Your task to perform on an android device: Go to notification settings Image 0: 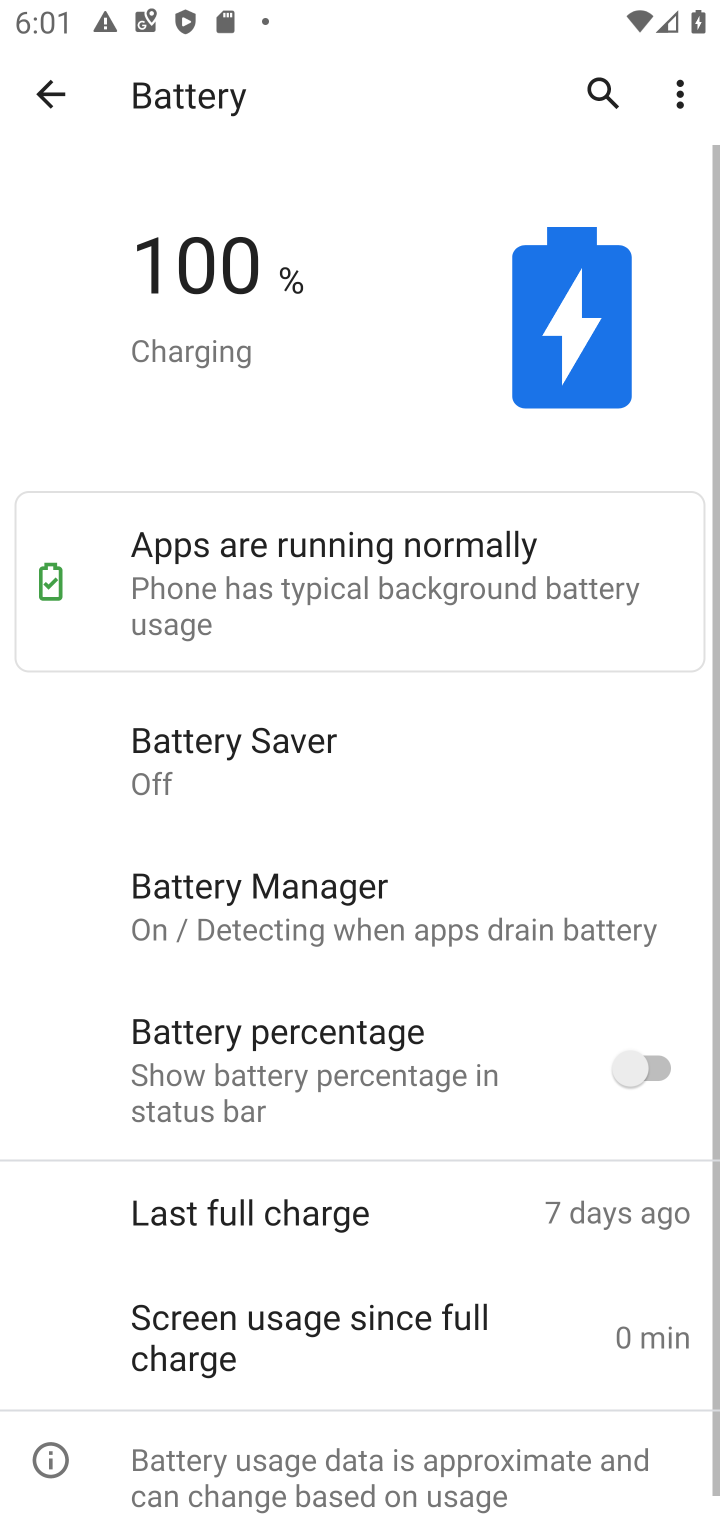
Step 0: press home button
Your task to perform on an android device: Go to notification settings Image 1: 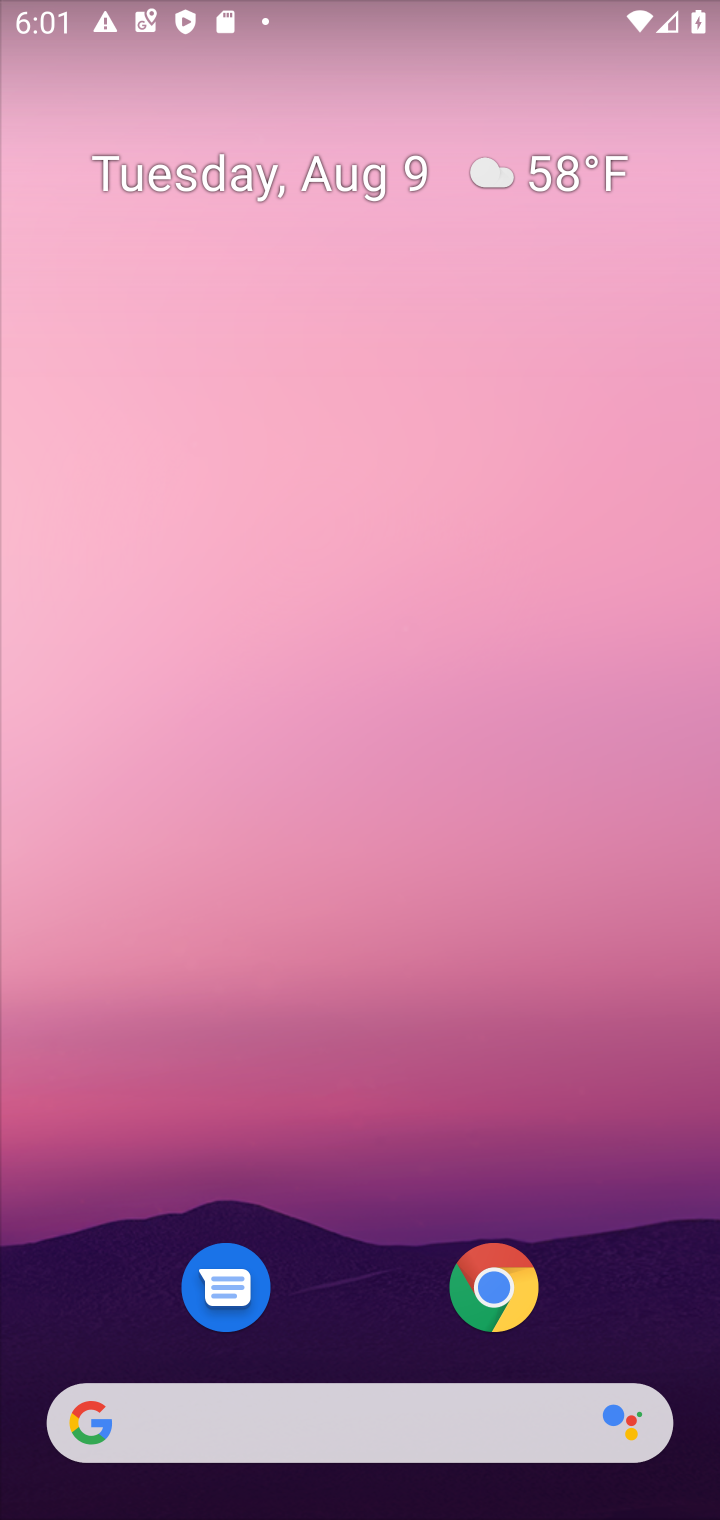
Step 1: drag from (378, 1231) to (345, 627)
Your task to perform on an android device: Go to notification settings Image 2: 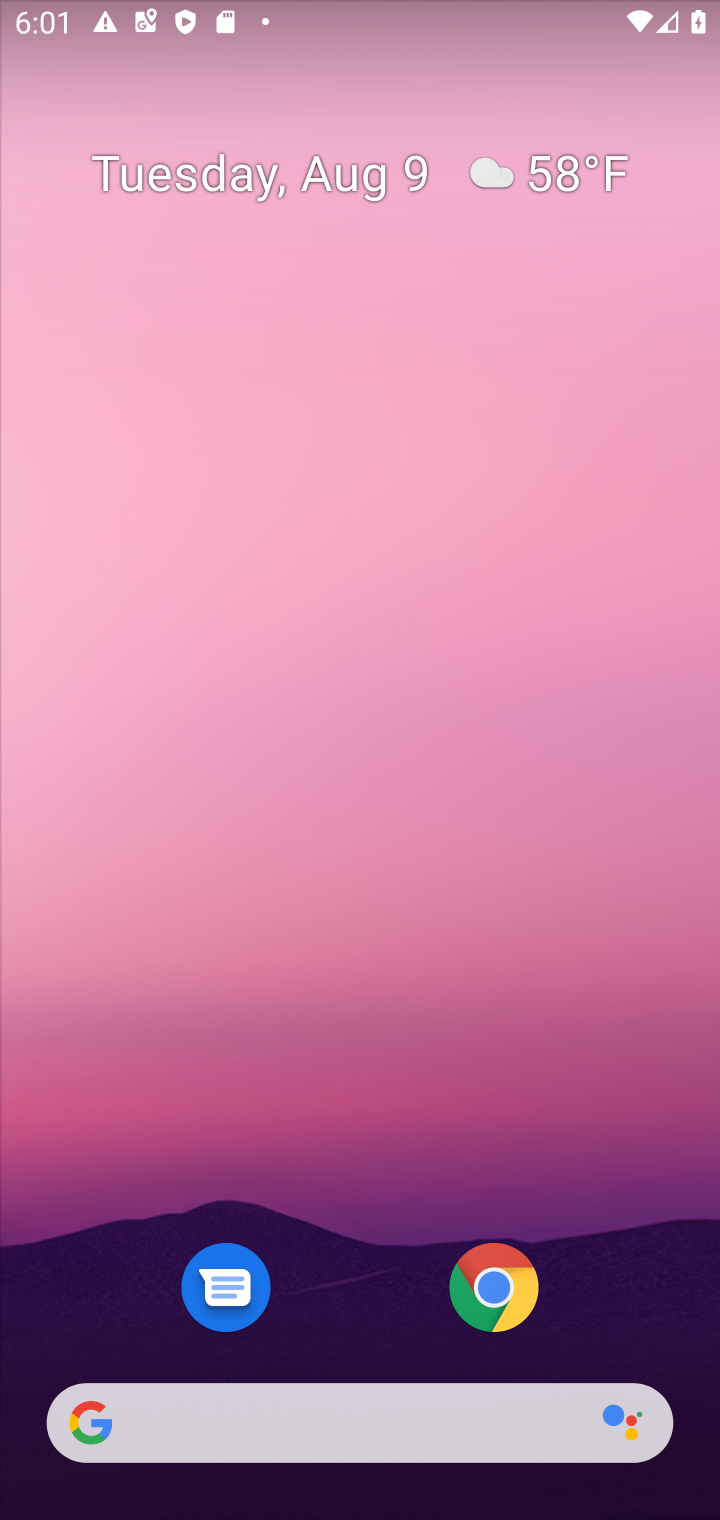
Step 2: drag from (357, 1075) to (191, 195)
Your task to perform on an android device: Go to notification settings Image 3: 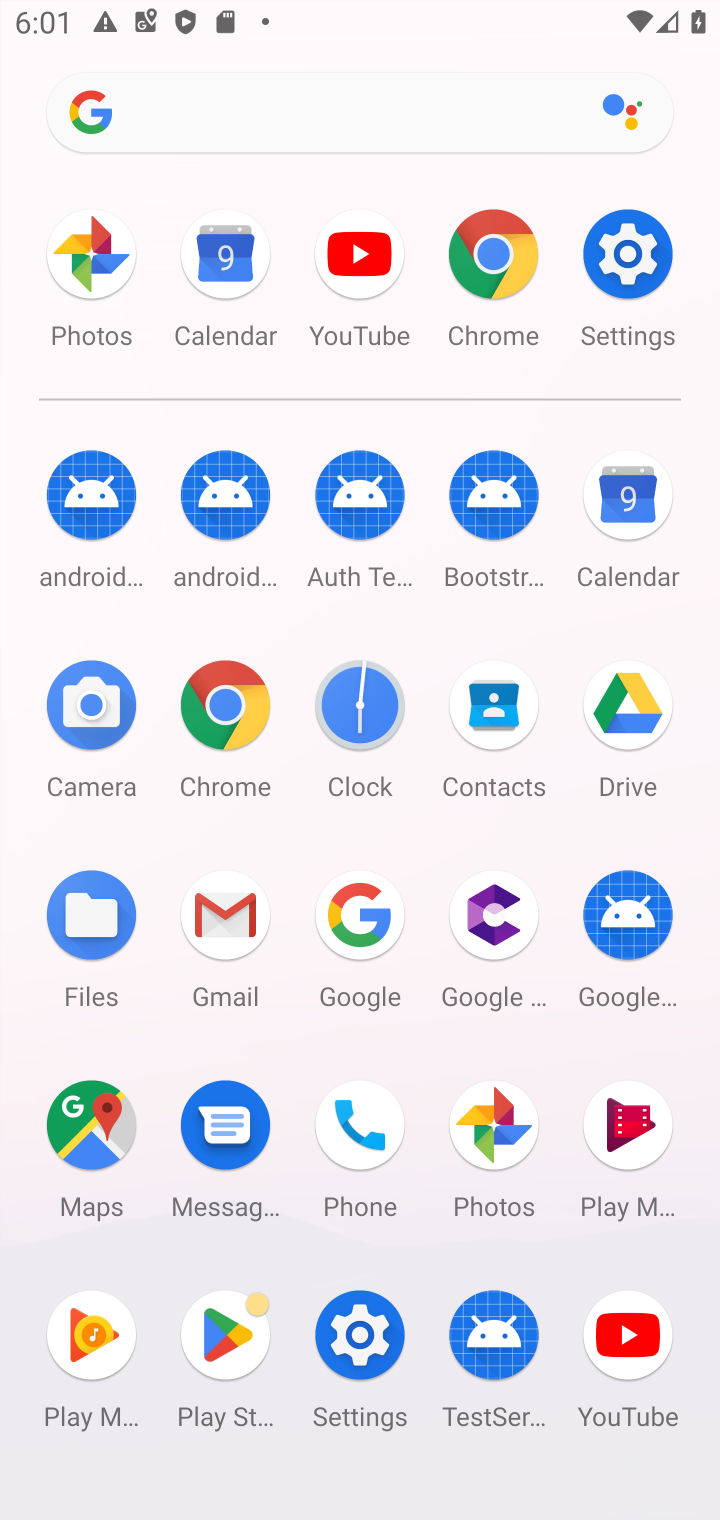
Step 3: click (637, 241)
Your task to perform on an android device: Go to notification settings Image 4: 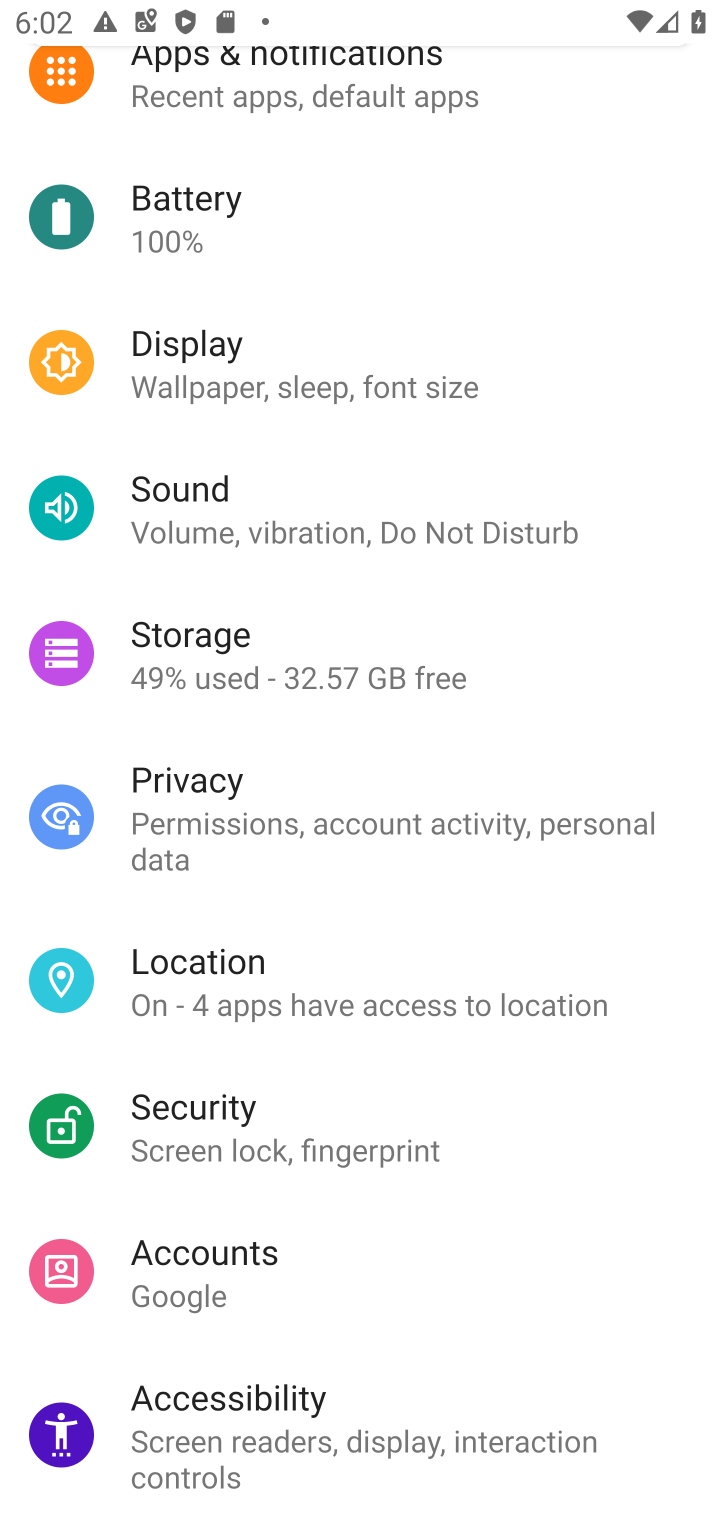
Step 4: click (263, 1413)
Your task to perform on an android device: Go to notification settings Image 5: 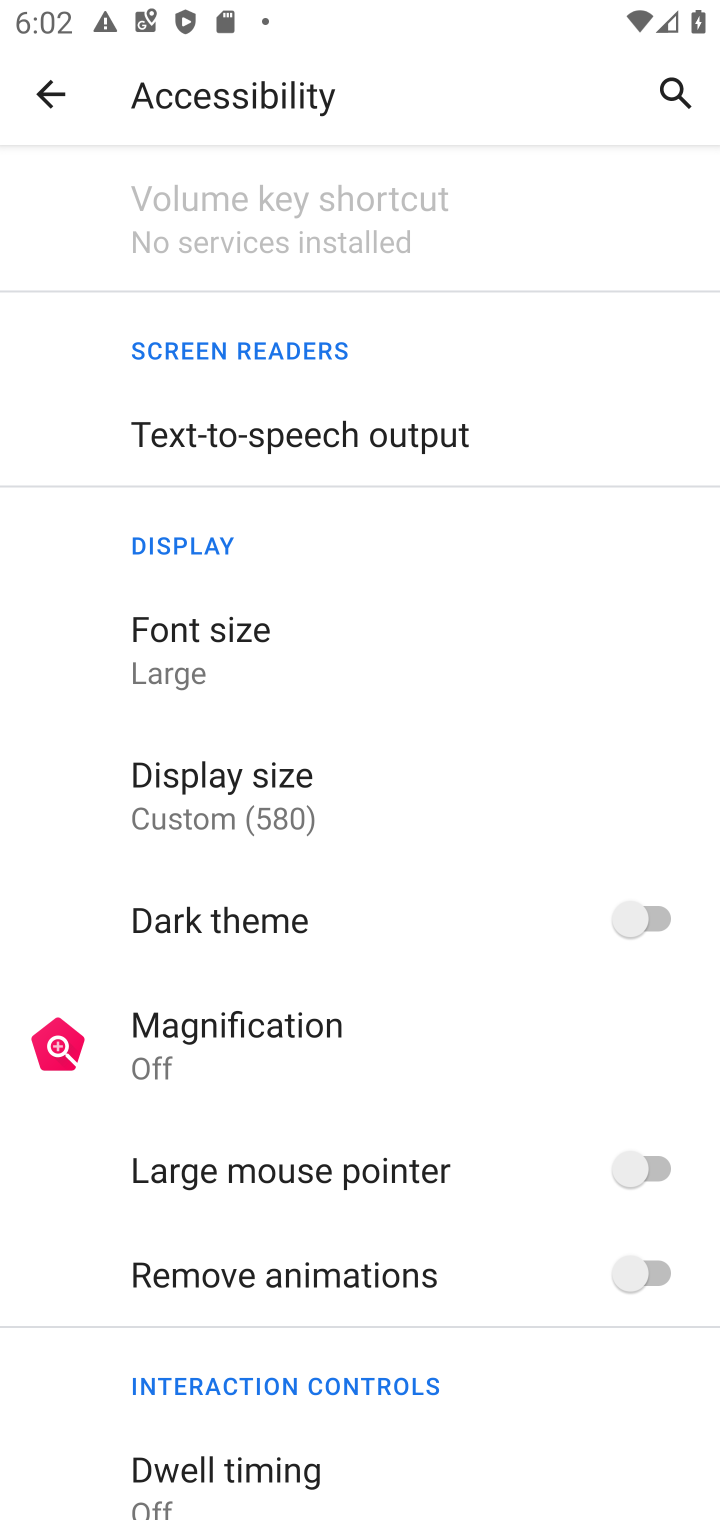
Step 5: task complete